Your task to perform on an android device: open sync settings in chrome Image 0: 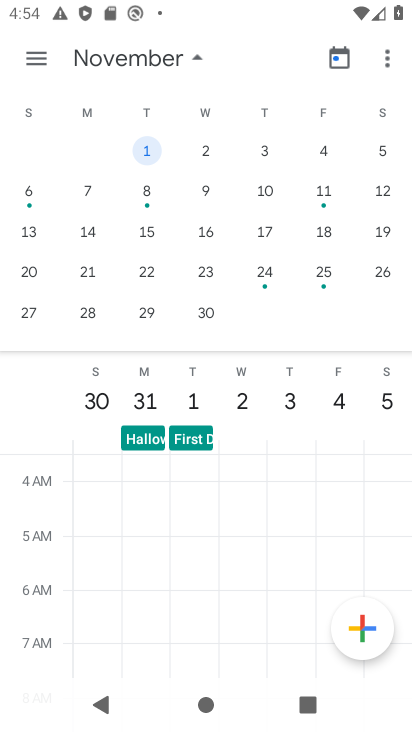
Step 0: press back button
Your task to perform on an android device: open sync settings in chrome Image 1: 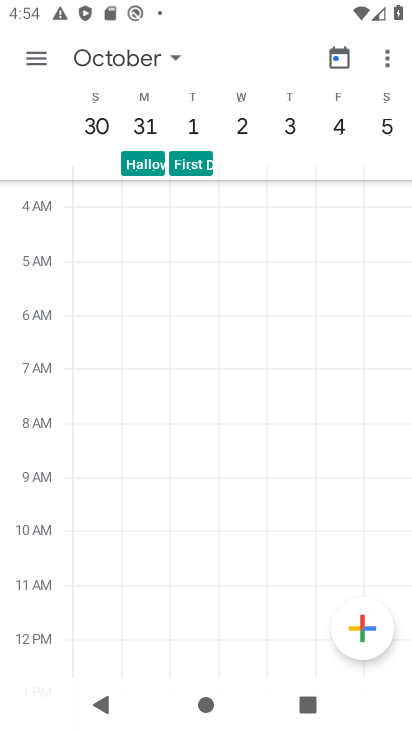
Step 1: press home button
Your task to perform on an android device: open sync settings in chrome Image 2: 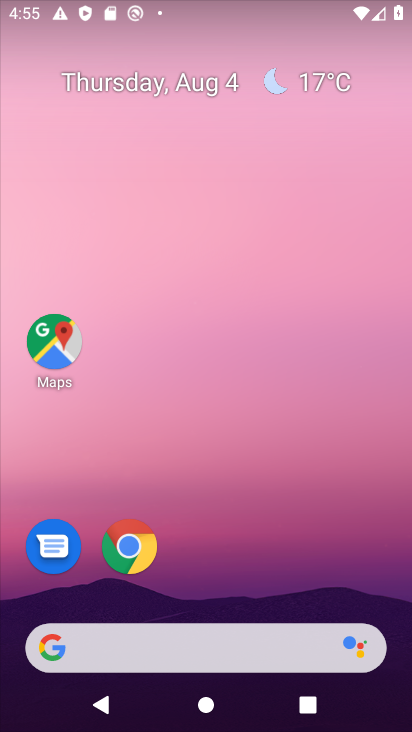
Step 2: click (129, 543)
Your task to perform on an android device: open sync settings in chrome Image 3: 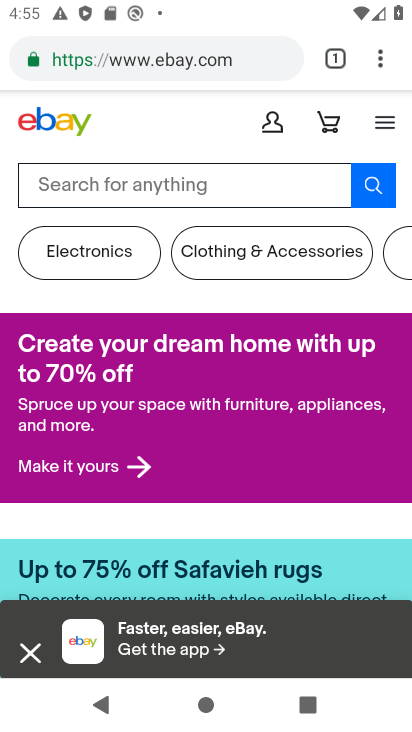
Step 3: click (377, 67)
Your task to perform on an android device: open sync settings in chrome Image 4: 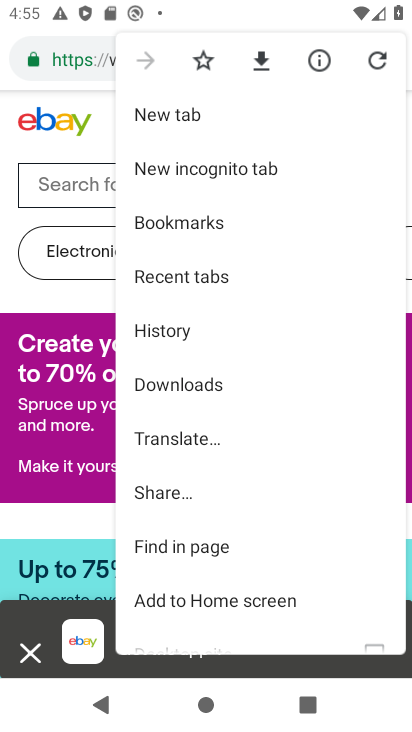
Step 4: drag from (234, 450) to (230, 285)
Your task to perform on an android device: open sync settings in chrome Image 5: 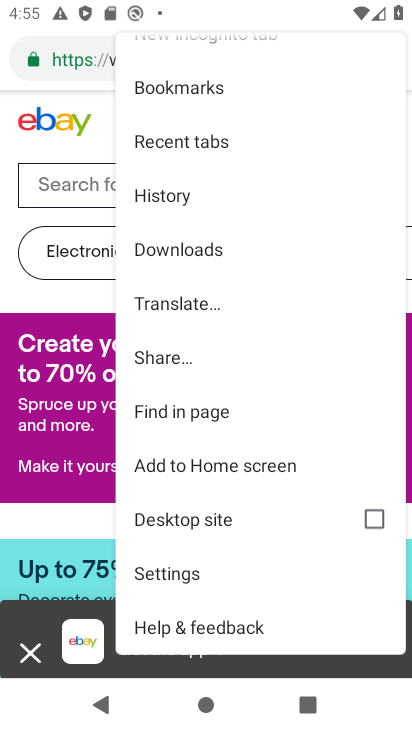
Step 5: click (183, 575)
Your task to perform on an android device: open sync settings in chrome Image 6: 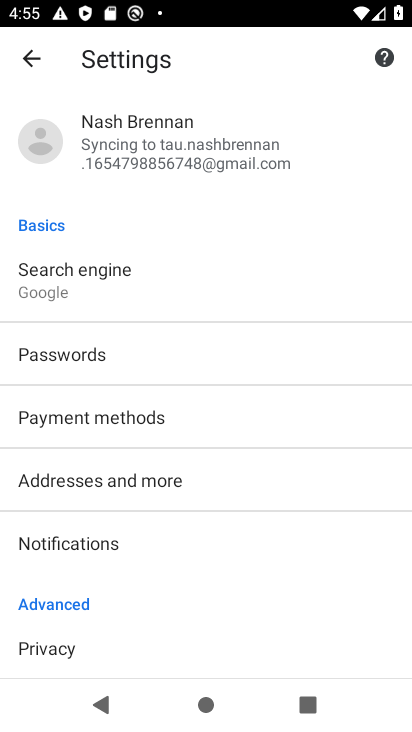
Step 6: click (168, 162)
Your task to perform on an android device: open sync settings in chrome Image 7: 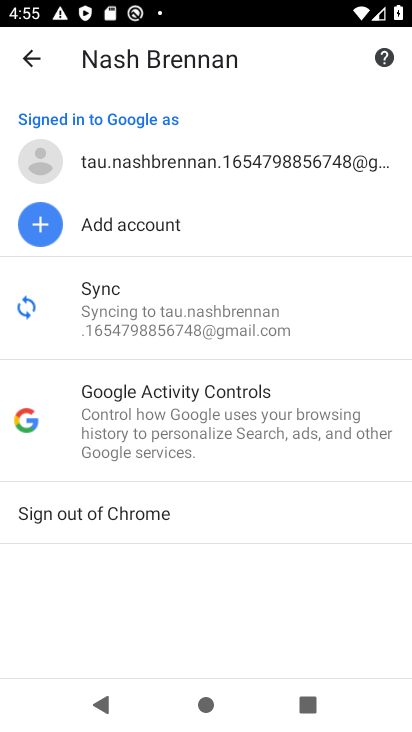
Step 7: click (114, 300)
Your task to perform on an android device: open sync settings in chrome Image 8: 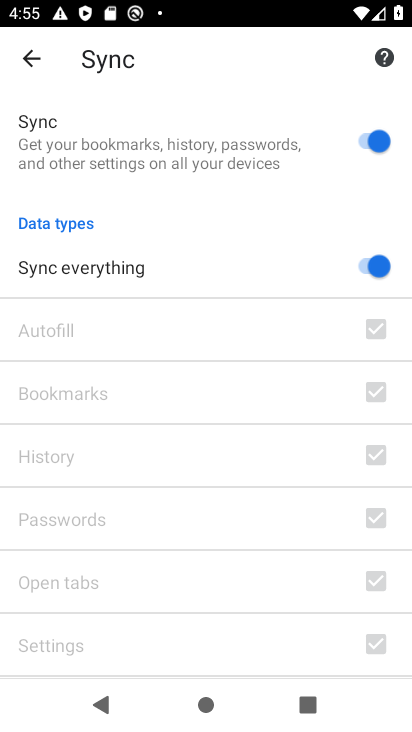
Step 8: task complete